Your task to perform on an android device: toggle priority inbox in the gmail app Image 0: 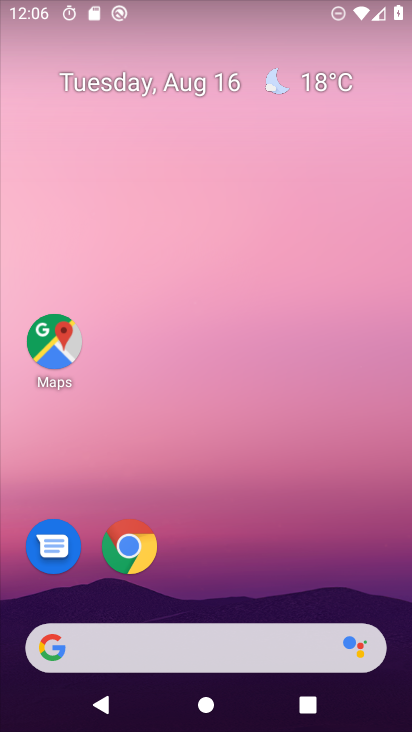
Step 0: drag from (237, 612) to (250, 58)
Your task to perform on an android device: toggle priority inbox in the gmail app Image 1: 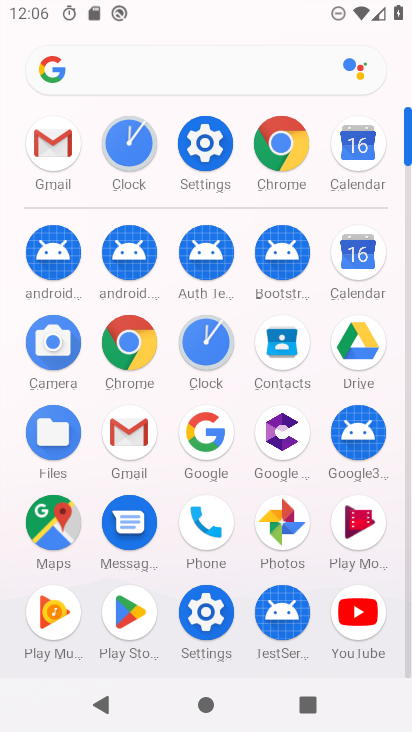
Step 1: click (111, 439)
Your task to perform on an android device: toggle priority inbox in the gmail app Image 2: 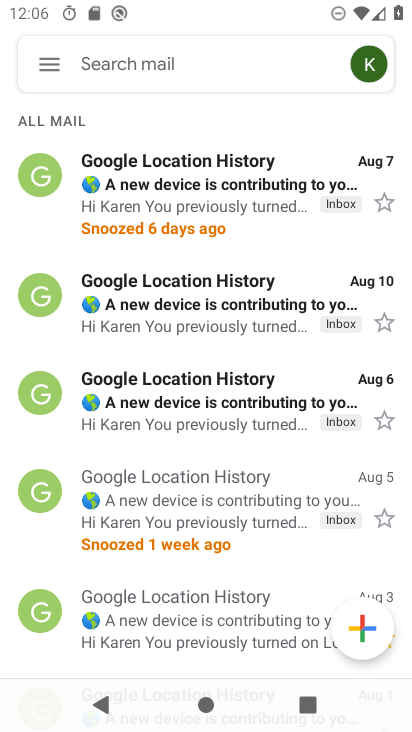
Step 2: click (48, 69)
Your task to perform on an android device: toggle priority inbox in the gmail app Image 3: 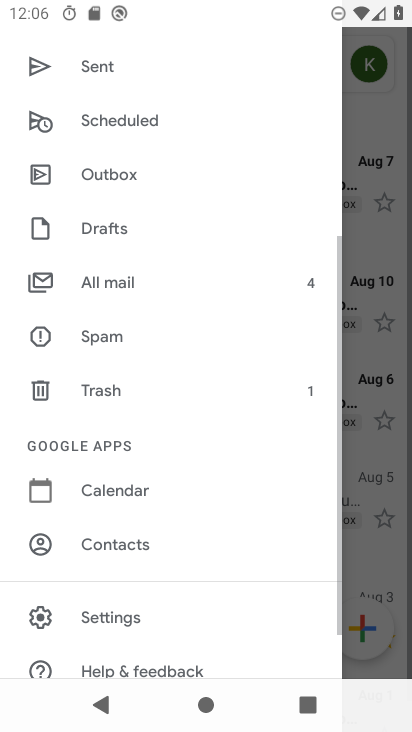
Step 3: click (101, 611)
Your task to perform on an android device: toggle priority inbox in the gmail app Image 4: 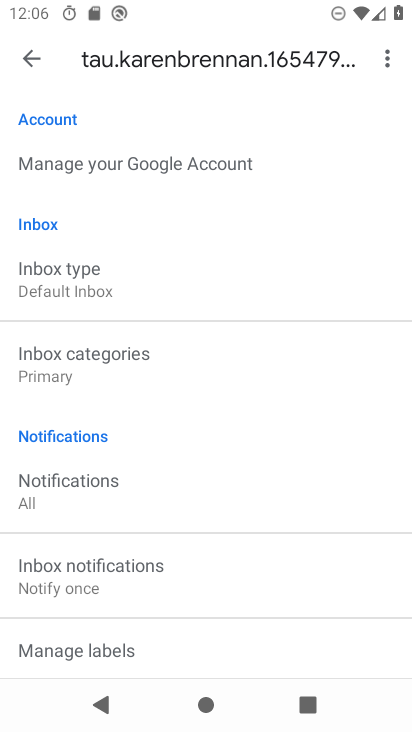
Step 4: click (56, 283)
Your task to perform on an android device: toggle priority inbox in the gmail app Image 5: 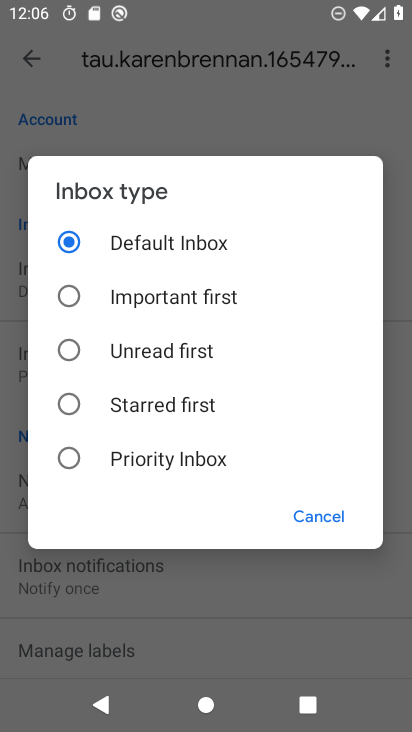
Step 5: click (63, 462)
Your task to perform on an android device: toggle priority inbox in the gmail app Image 6: 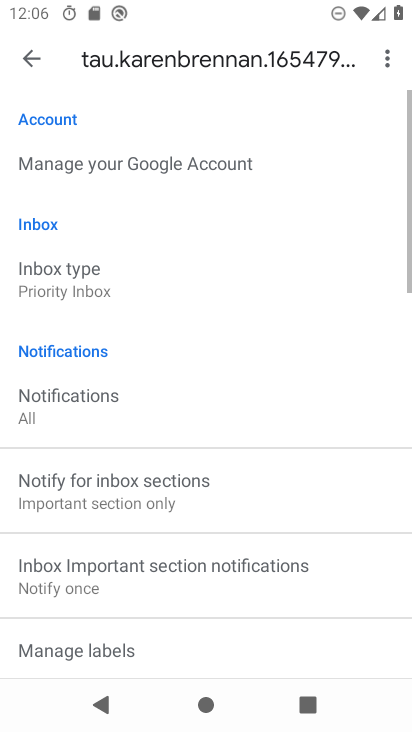
Step 6: task complete